Your task to perform on an android device: install app "Expedia: Hotels, Flights & Car" Image 0: 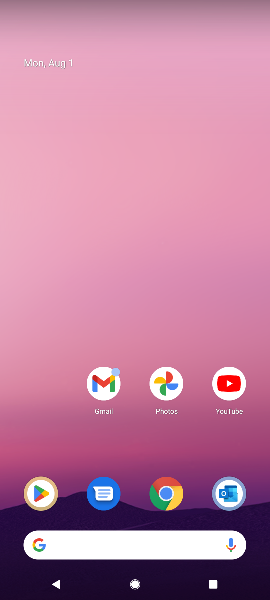
Step 0: click (39, 504)
Your task to perform on an android device: install app "Expedia: Hotels, Flights & Car" Image 1: 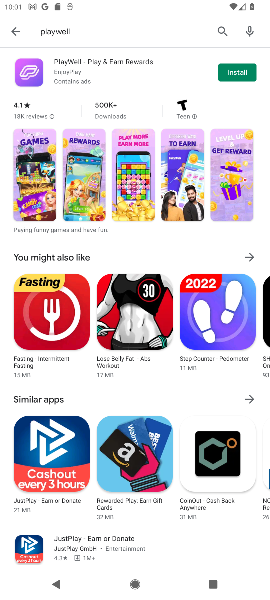
Step 1: click (220, 31)
Your task to perform on an android device: install app "Expedia: Hotels, Flights & Car" Image 2: 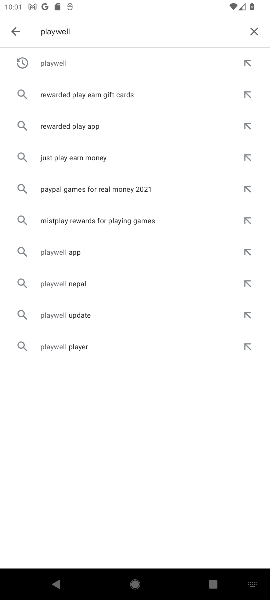
Step 2: click (243, 31)
Your task to perform on an android device: install app "Expedia: Hotels, Flights & Car" Image 3: 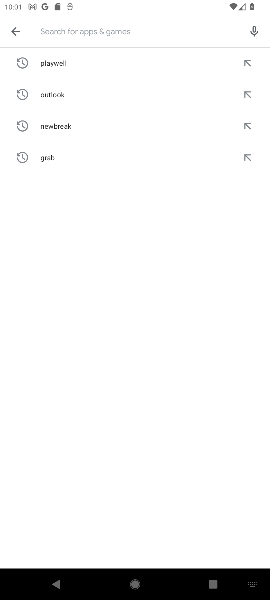
Step 3: type "expedia"
Your task to perform on an android device: install app "Expedia: Hotels, Flights & Car" Image 4: 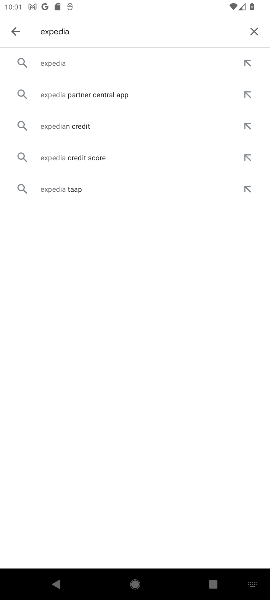
Step 4: click (95, 62)
Your task to perform on an android device: install app "Expedia: Hotels, Flights & Car" Image 5: 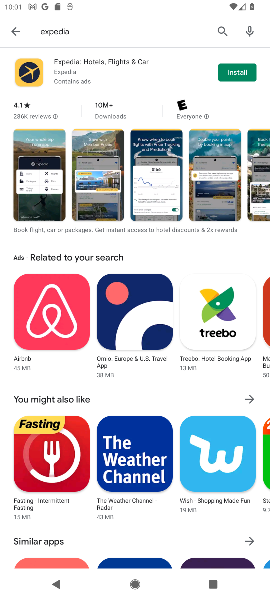
Step 5: click (238, 62)
Your task to perform on an android device: install app "Expedia: Hotels, Flights & Car" Image 6: 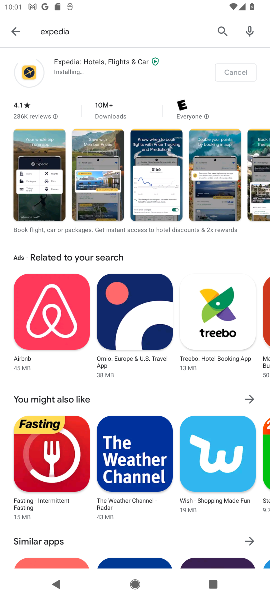
Step 6: task complete